Your task to perform on an android device: change keyboard looks Image 0: 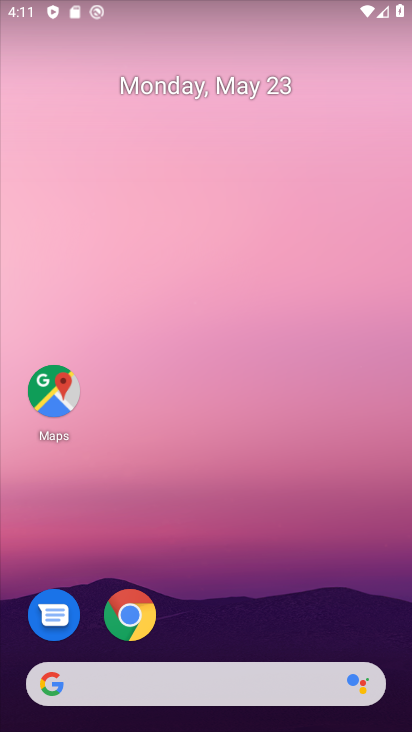
Step 0: drag from (259, 566) to (261, 61)
Your task to perform on an android device: change keyboard looks Image 1: 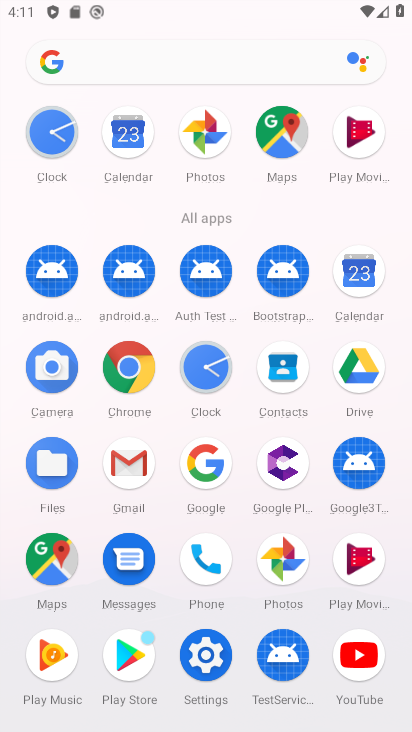
Step 1: click (198, 648)
Your task to perform on an android device: change keyboard looks Image 2: 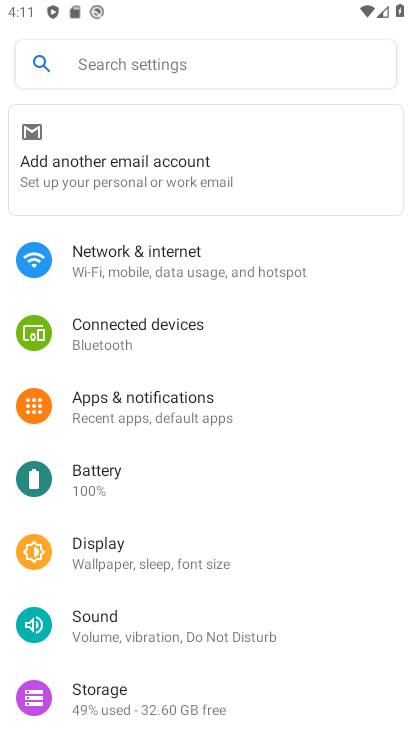
Step 2: drag from (215, 519) to (208, 228)
Your task to perform on an android device: change keyboard looks Image 3: 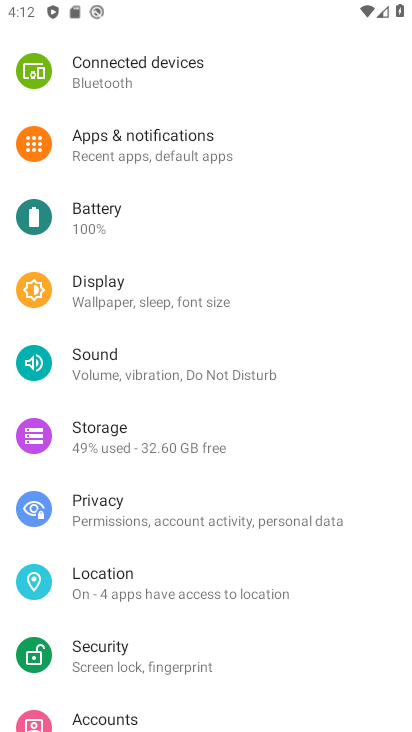
Step 3: drag from (192, 624) to (192, 266)
Your task to perform on an android device: change keyboard looks Image 4: 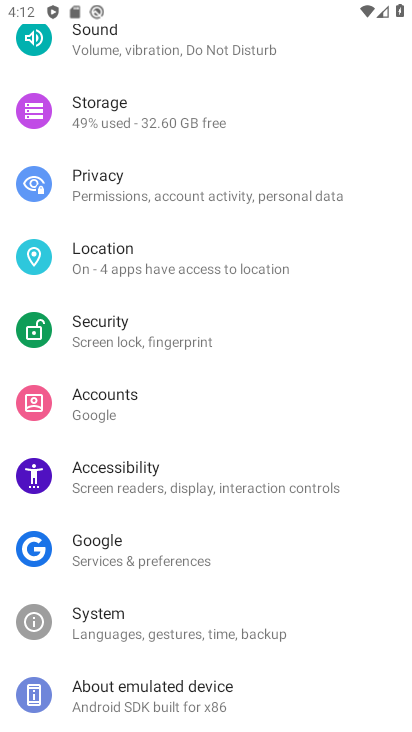
Step 4: click (172, 627)
Your task to perform on an android device: change keyboard looks Image 5: 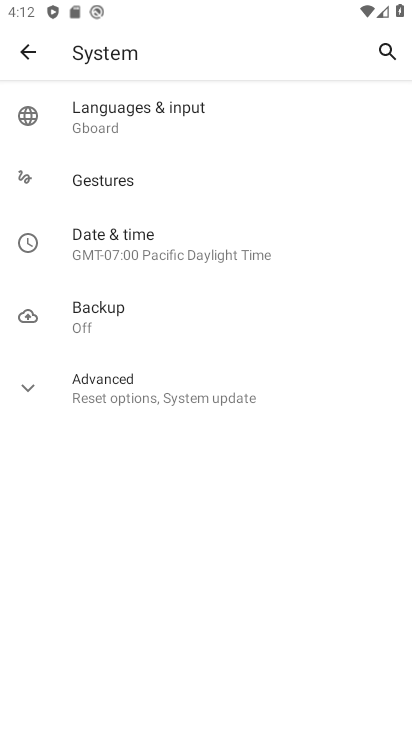
Step 5: click (157, 123)
Your task to perform on an android device: change keyboard looks Image 6: 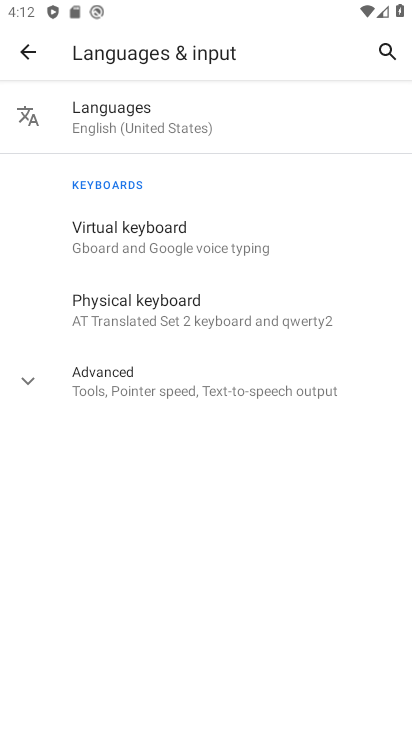
Step 6: click (159, 231)
Your task to perform on an android device: change keyboard looks Image 7: 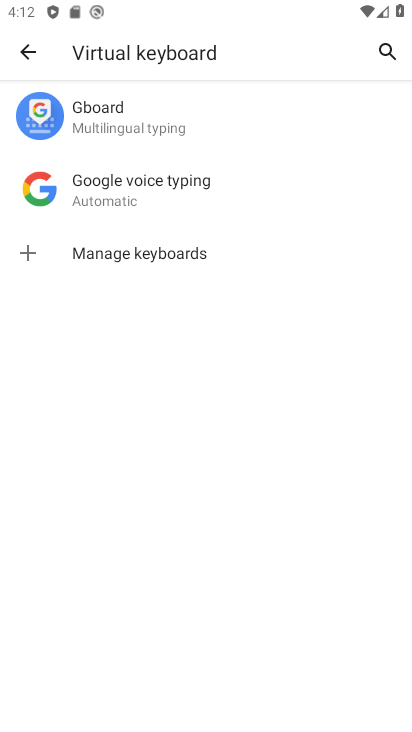
Step 7: click (146, 113)
Your task to perform on an android device: change keyboard looks Image 8: 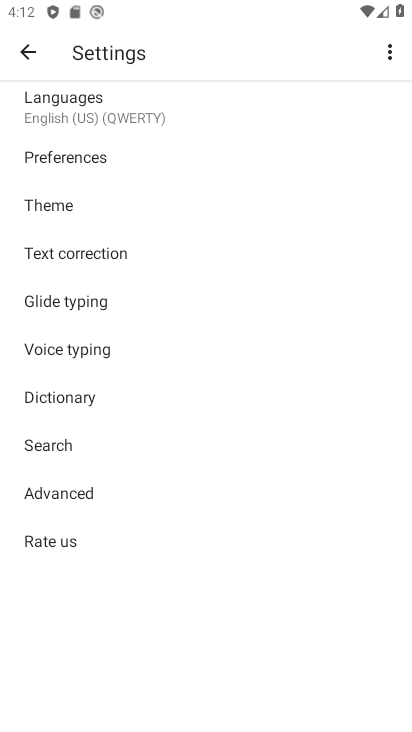
Step 8: click (91, 197)
Your task to perform on an android device: change keyboard looks Image 9: 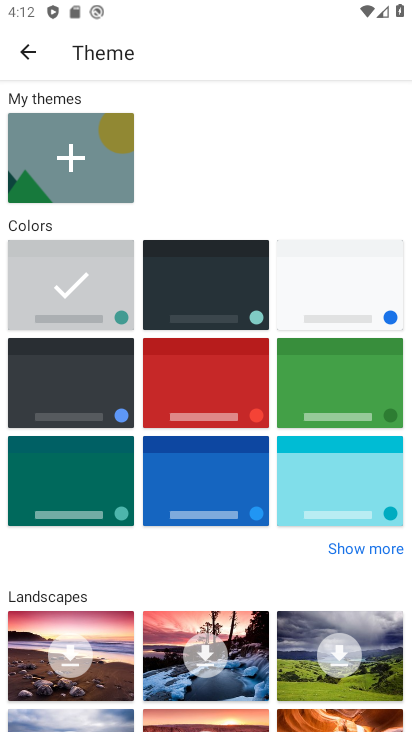
Step 9: click (188, 363)
Your task to perform on an android device: change keyboard looks Image 10: 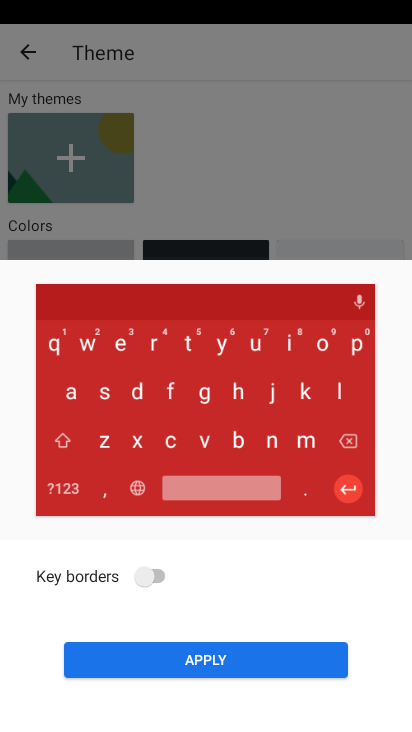
Step 10: click (160, 574)
Your task to perform on an android device: change keyboard looks Image 11: 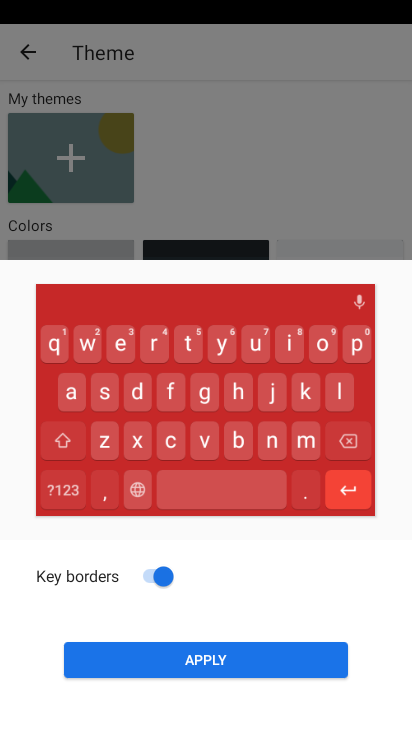
Step 11: click (212, 660)
Your task to perform on an android device: change keyboard looks Image 12: 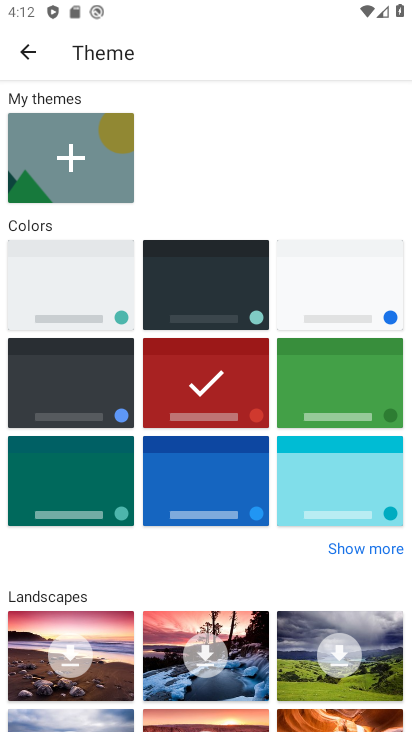
Step 12: task complete